Your task to perform on an android device: stop showing notifications on the lock screen Image 0: 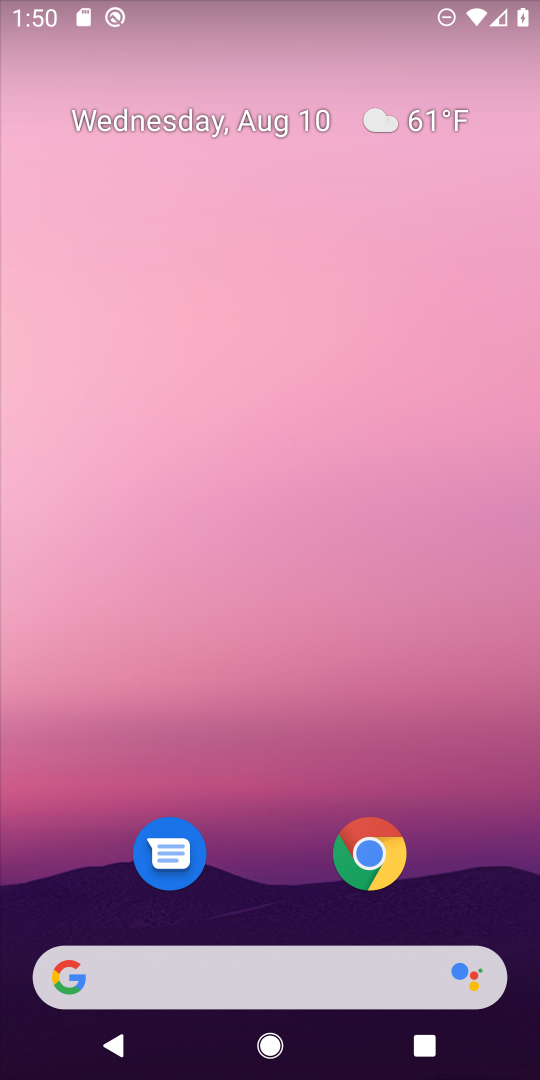
Step 0: drag from (252, 565) to (83, 7)
Your task to perform on an android device: stop showing notifications on the lock screen Image 1: 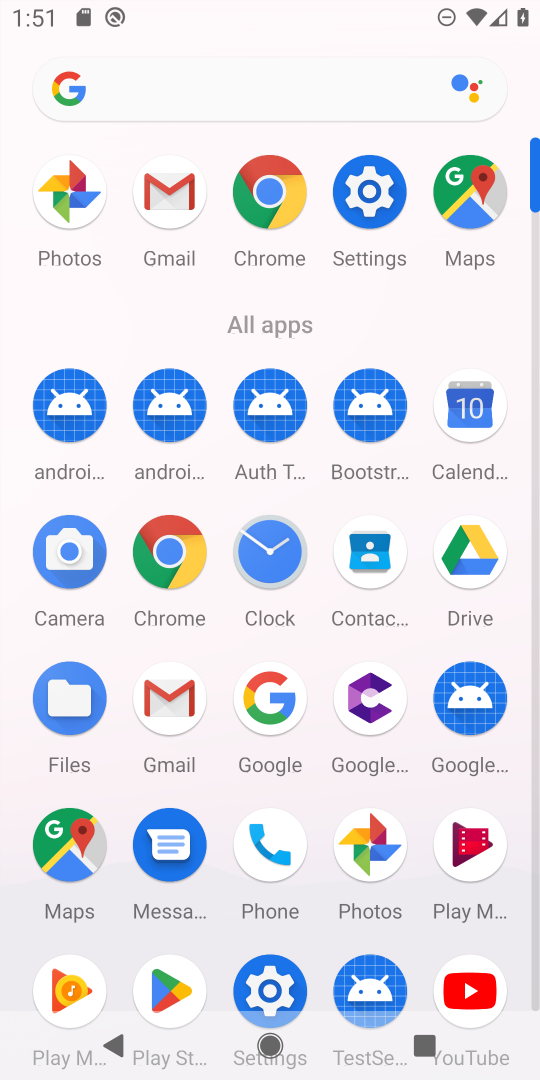
Step 1: click (276, 980)
Your task to perform on an android device: stop showing notifications on the lock screen Image 2: 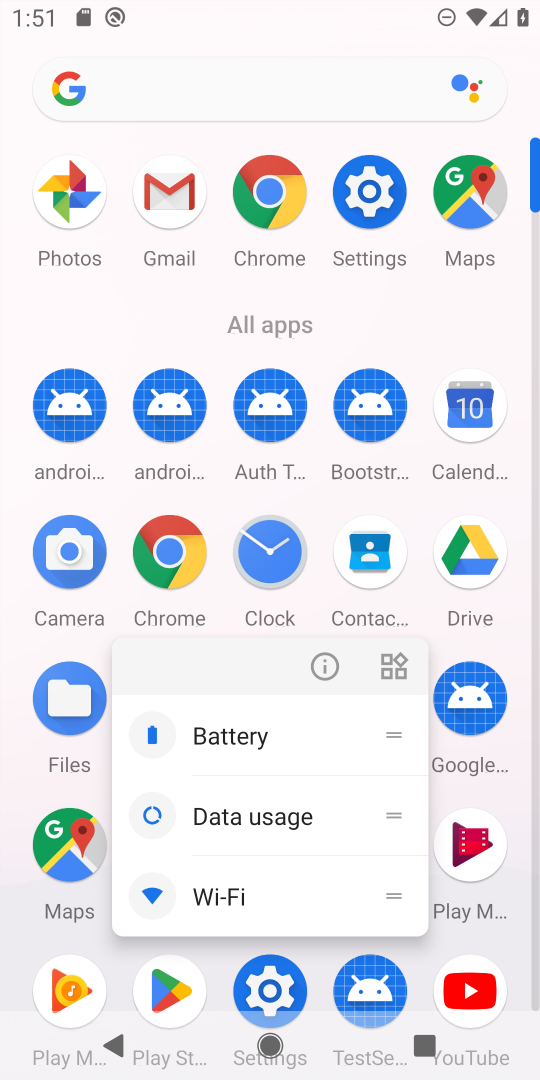
Step 2: click (272, 979)
Your task to perform on an android device: stop showing notifications on the lock screen Image 3: 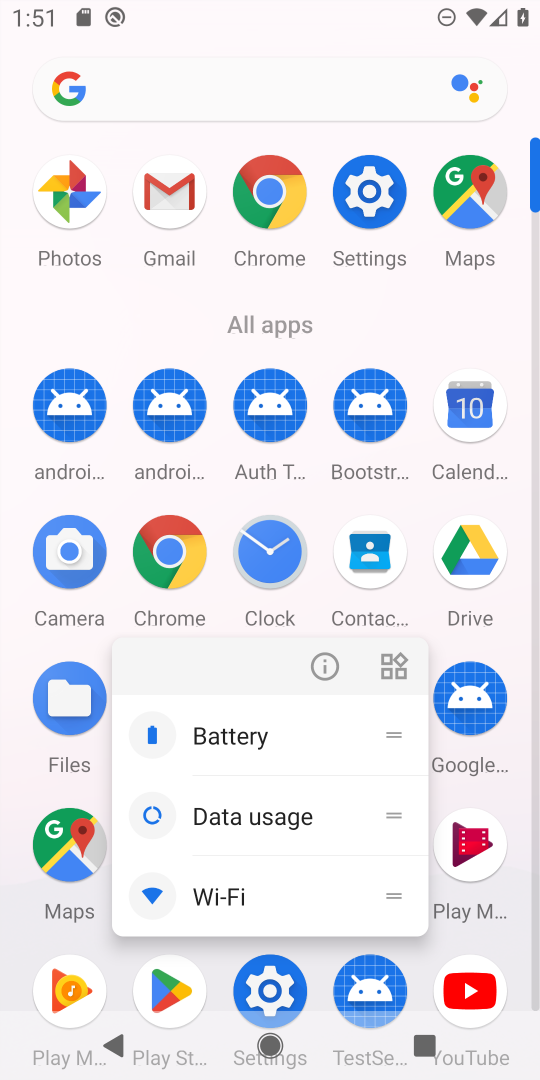
Step 3: click (272, 979)
Your task to perform on an android device: stop showing notifications on the lock screen Image 4: 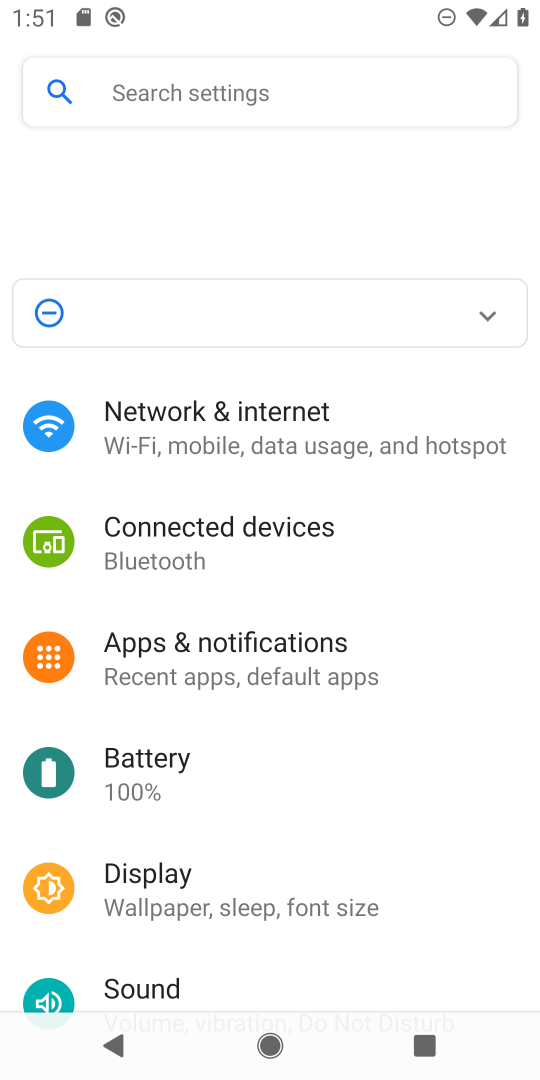
Step 4: task complete